Your task to perform on an android device: Open the calendar app, open the side menu, and click the "Day" option Image 0: 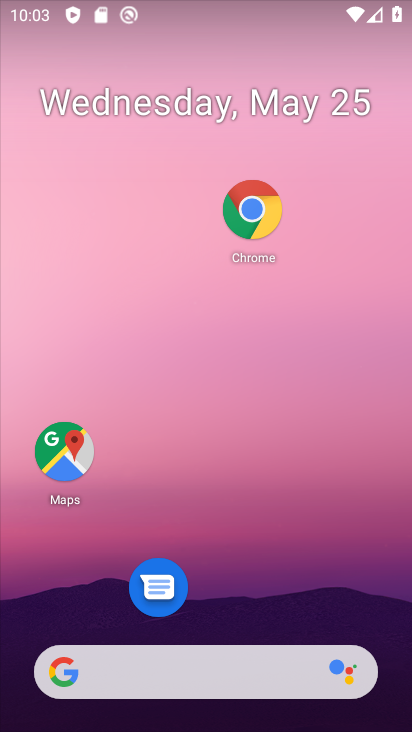
Step 0: drag from (236, 612) to (253, 135)
Your task to perform on an android device: Open the calendar app, open the side menu, and click the "Day" option Image 1: 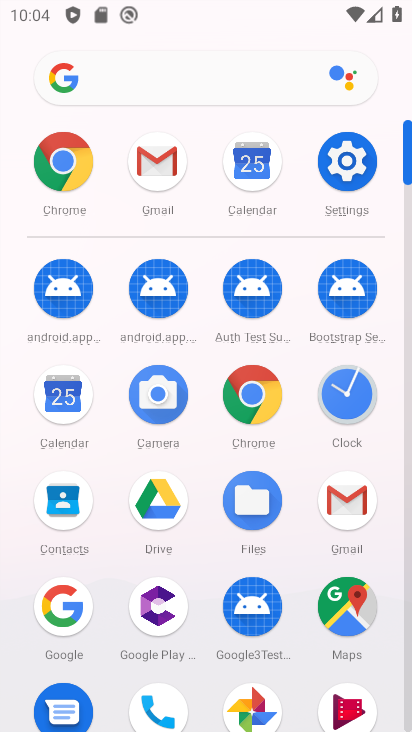
Step 1: click (49, 414)
Your task to perform on an android device: Open the calendar app, open the side menu, and click the "Day" option Image 2: 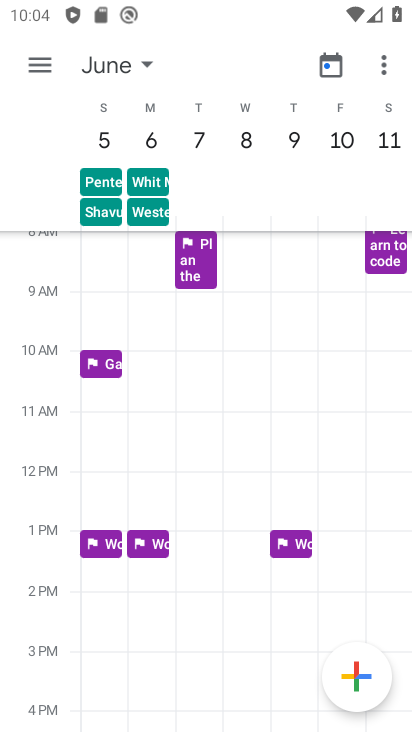
Step 2: click (34, 65)
Your task to perform on an android device: Open the calendar app, open the side menu, and click the "Day" option Image 3: 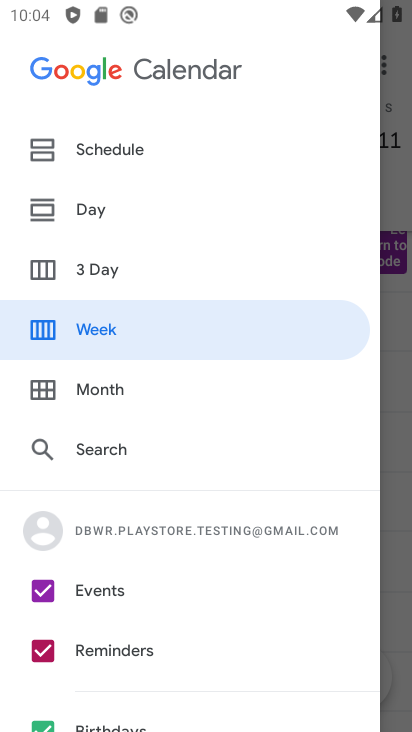
Step 3: click (102, 219)
Your task to perform on an android device: Open the calendar app, open the side menu, and click the "Day" option Image 4: 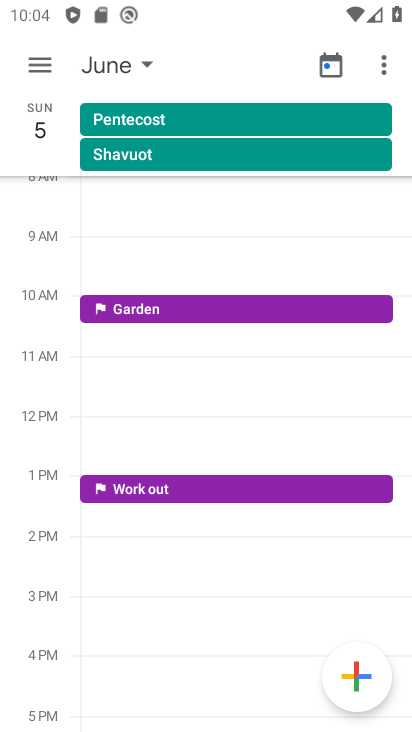
Step 4: task complete